Your task to perform on an android device: turn on airplane mode Image 0: 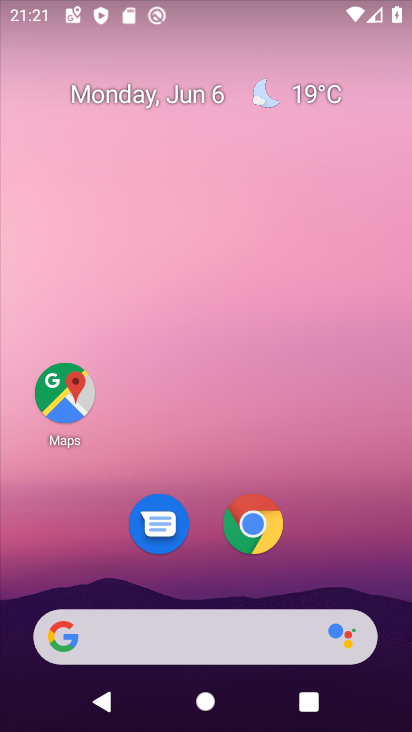
Step 0: drag from (210, 470) to (278, 10)
Your task to perform on an android device: turn on airplane mode Image 1: 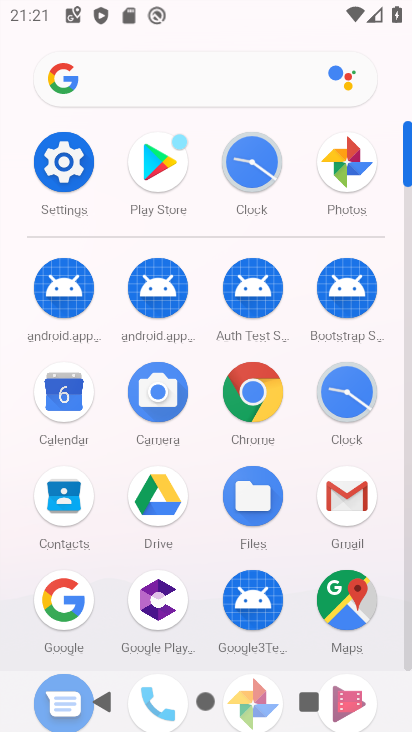
Step 1: click (81, 163)
Your task to perform on an android device: turn on airplane mode Image 2: 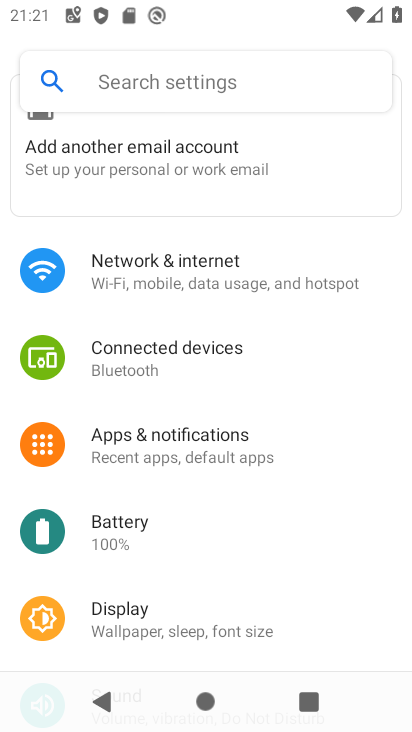
Step 2: click (247, 278)
Your task to perform on an android device: turn on airplane mode Image 3: 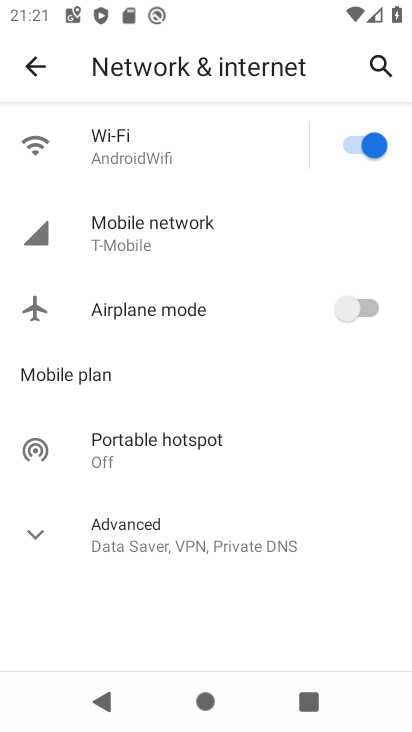
Step 3: click (361, 313)
Your task to perform on an android device: turn on airplane mode Image 4: 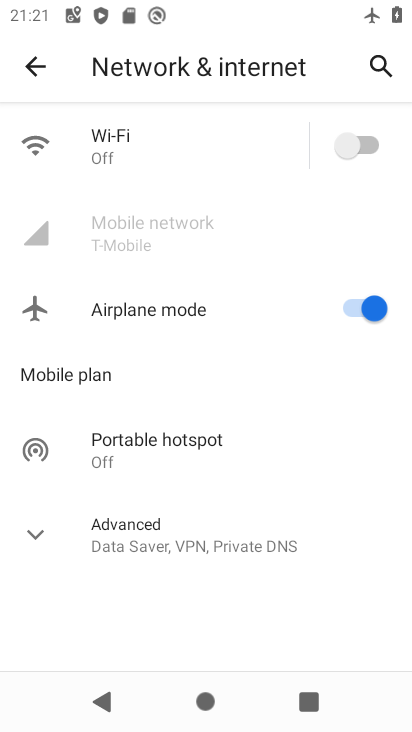
Step 4: task complete